Your task to perform on an android device: What's the weather going to be tomorrow? Image 0: 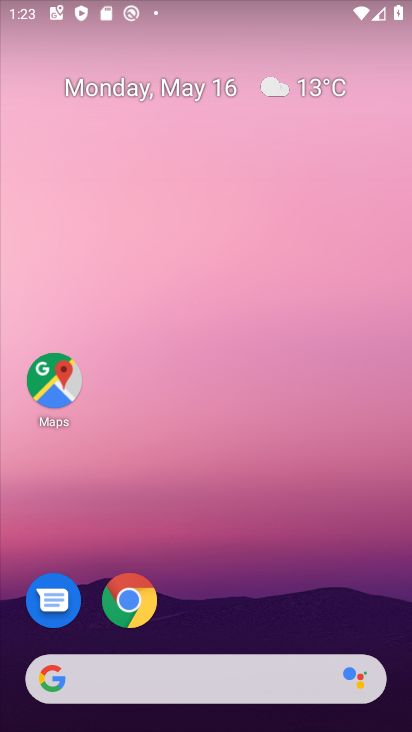
Step 0: click (139, 603)
Your task to perform on an android device: What's the weather going to be tomorrow? Image 1: 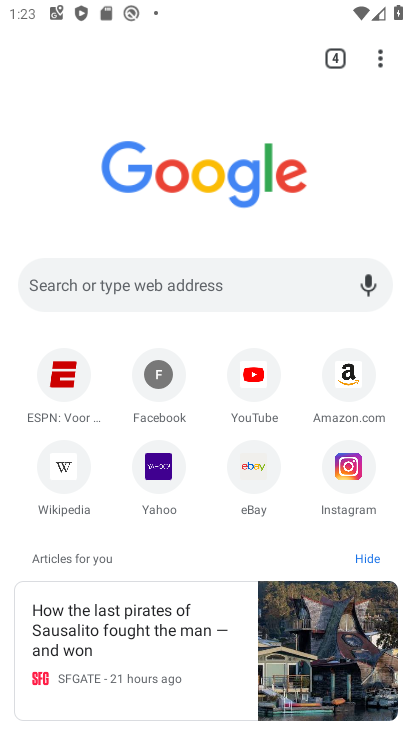
Step 1: click (177, 284)
Your task to perform on an android device: What's the weather going to be tomorrow? Image 2: 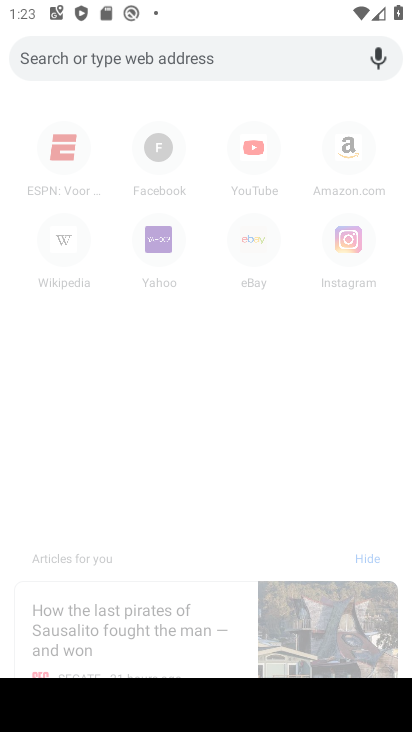
Step 2: type "what's the weather going to be tomorrow?"
Your task to perform on an android device: What's the weather going to be tomorrow? Image 3: 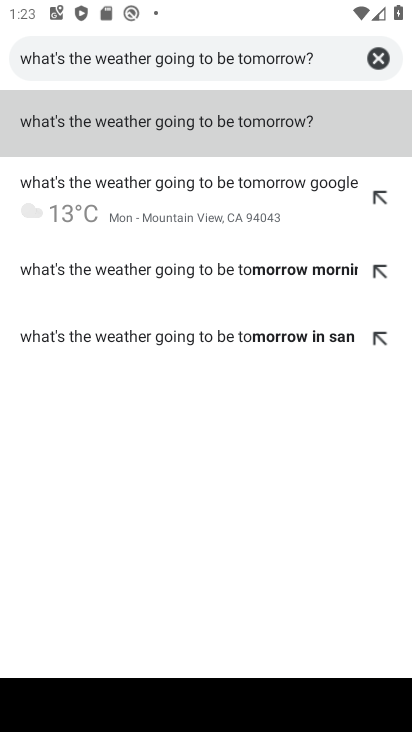
Step 3: click (153, 116)
Your task to perform on an android device: What's the weather going to be tomorrow? Image 4: 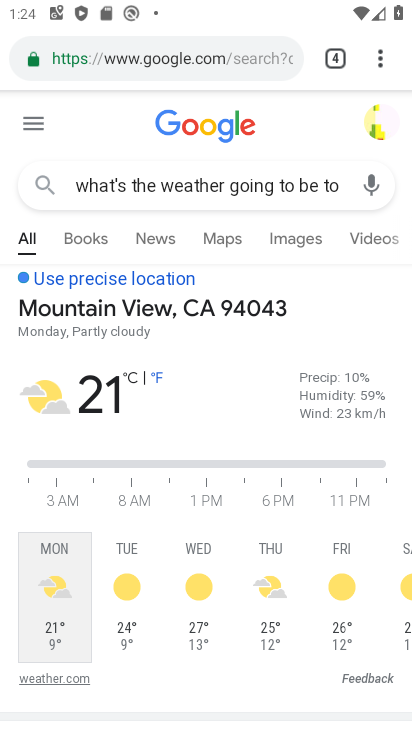
Step 4: task complete